Your task to perform on an android device: turn on sleep mode Image 0: 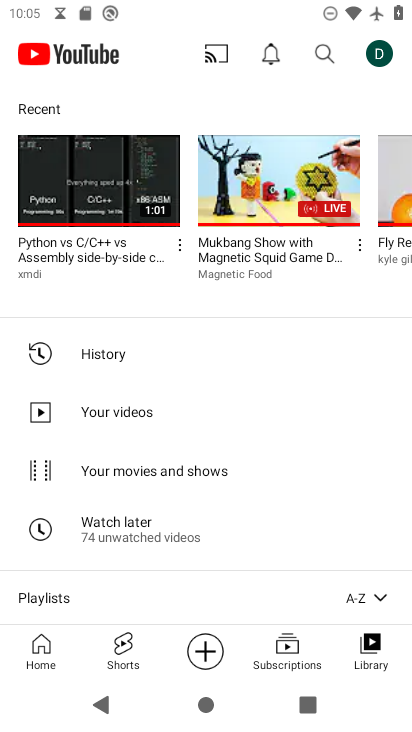
Step 0: press home button
Your task to perform on an android device: turn on sleep mode Image 1: 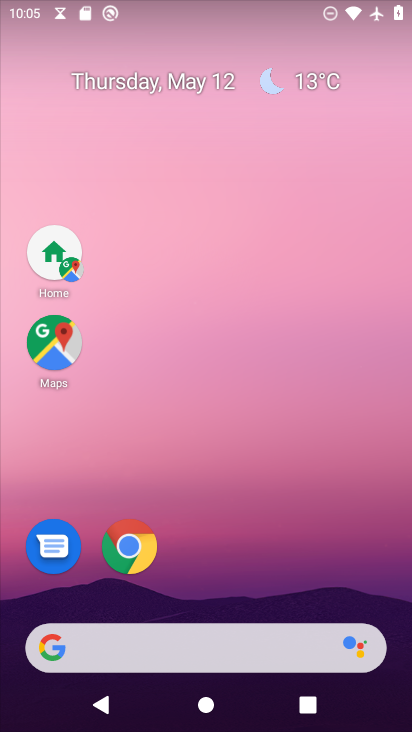
Step 1: drag from (132, 652) to (278, 153)
Your task to perform on an android device: turn on sleep mode Image 2: 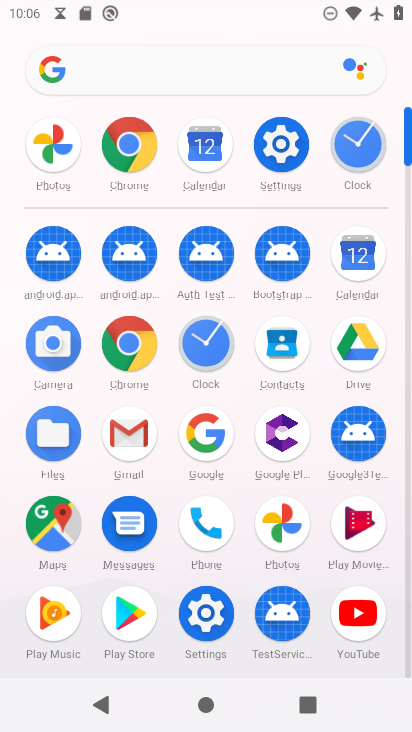
Step 2: click (281, 144)
Your task to perform on an android device: turn on sleep mode Image 3: 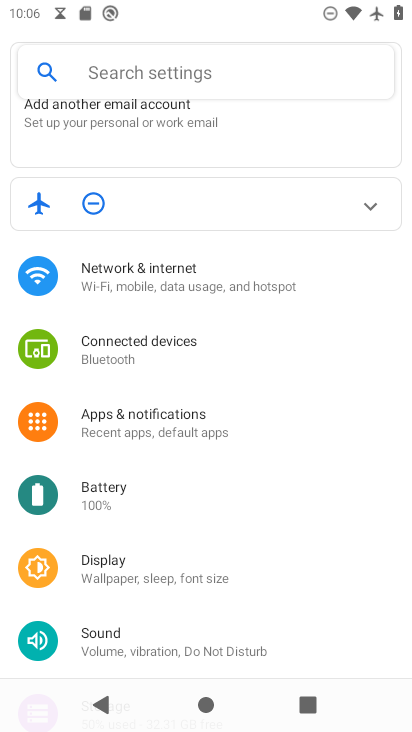
Step 3: click (179, 576)
Your task to perform on an android device: turn on sleep mode Image 4: 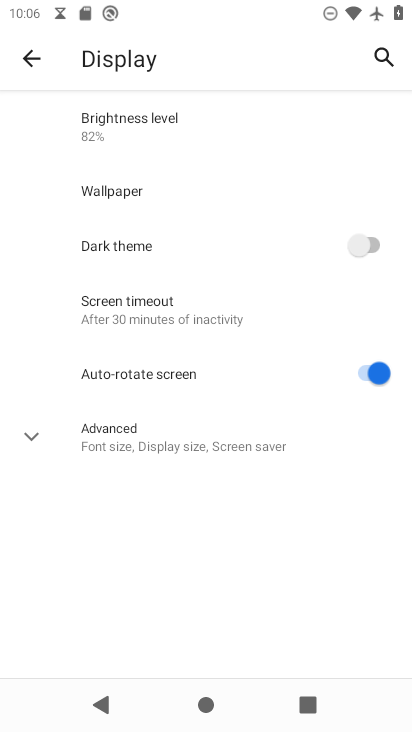
Step 4: task complete